Your task to perform on an android device: Is it going to rain this weekend? Image 0: 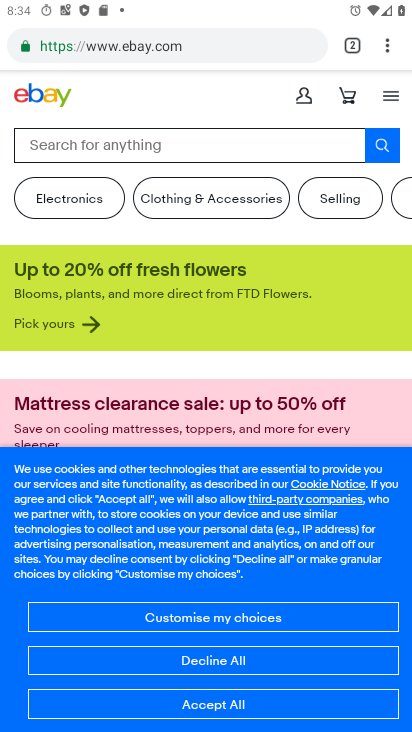
Step 0: press home button
Your task to perform on an android device: Is it going to rain this weekend? Image 1: 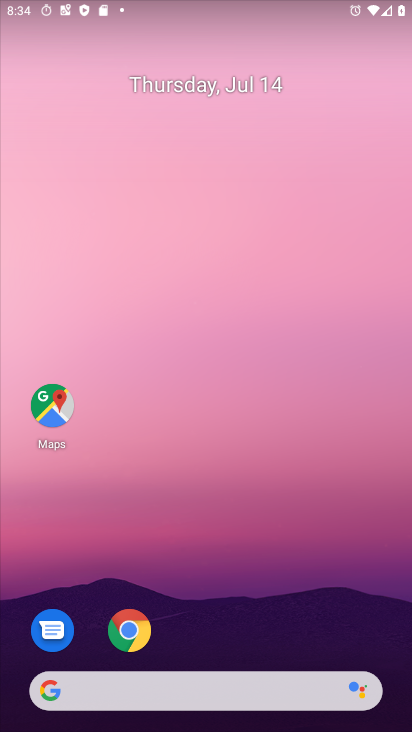
Step 1: drag from (229, 703) to (188, 124)
Your task to perform on an android device: Is it going to rain this weekend? Image 2: 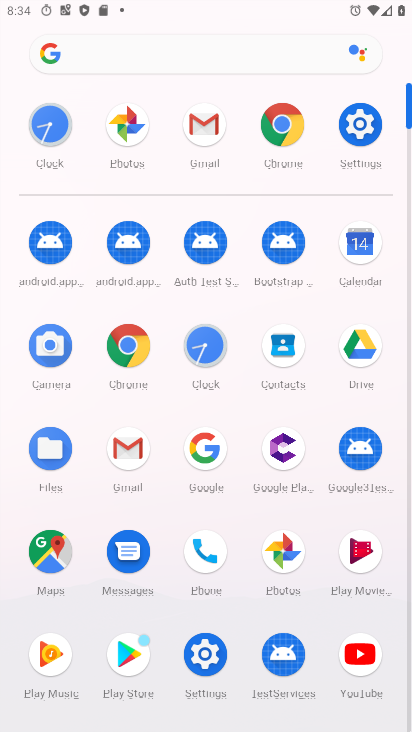
Step 2: click (210, 455)
Your task to perform on an android device: Is it going to rain this weekend? Image 3: 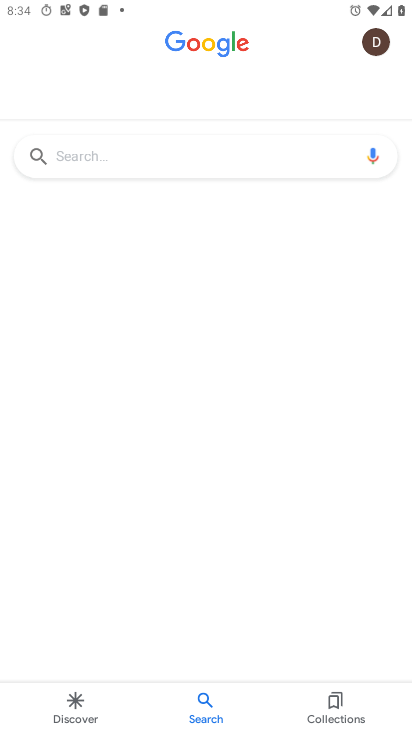
Step 3: click (195, 162)
Your task to perform on an android device: Is it going to rain this weekend? Image 4: 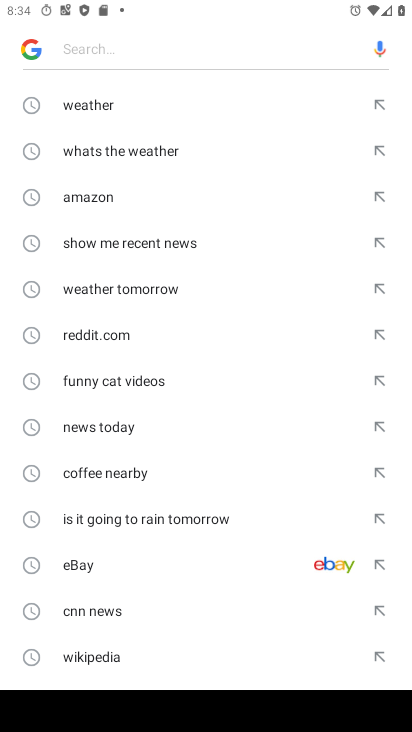
Step 4: click (90, 107)
Your task to perform on an android device: Is it going to rain this weekend? Image 5: 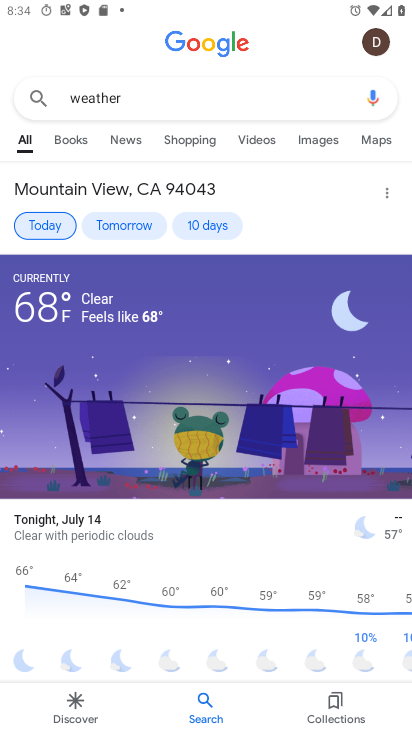
Step 5: click (206, 224)
Your task to perform on an android device: Is it going to rain this weekend? Image 6: 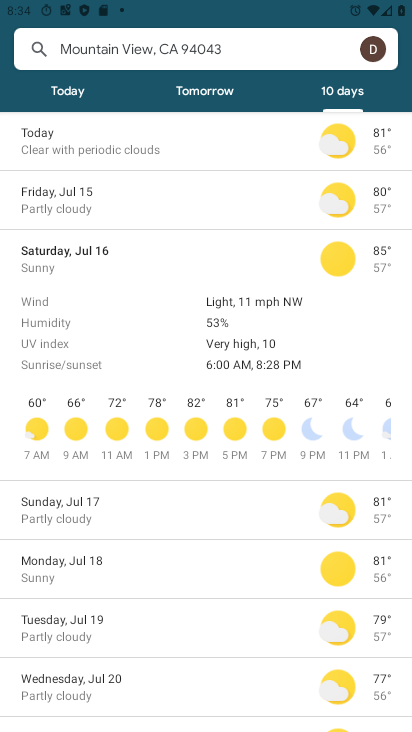
Step 6: task complete